Your task to perform on an android device: Open Chrome and go to the settings page Image 0: 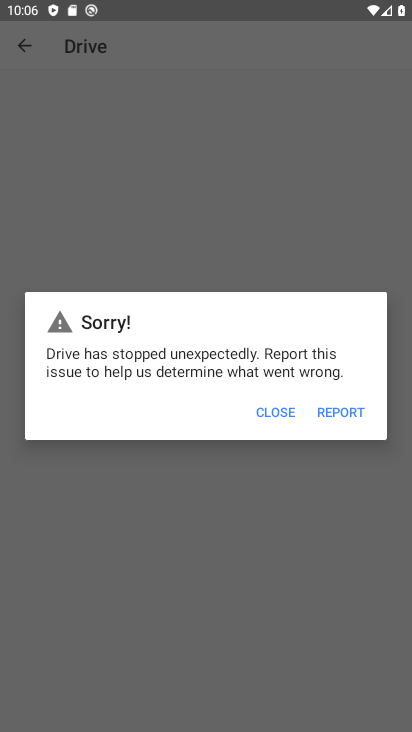
Step 0: press home button
Your task to perform on an android device: Open Chrome and go to the settings page Image 1: 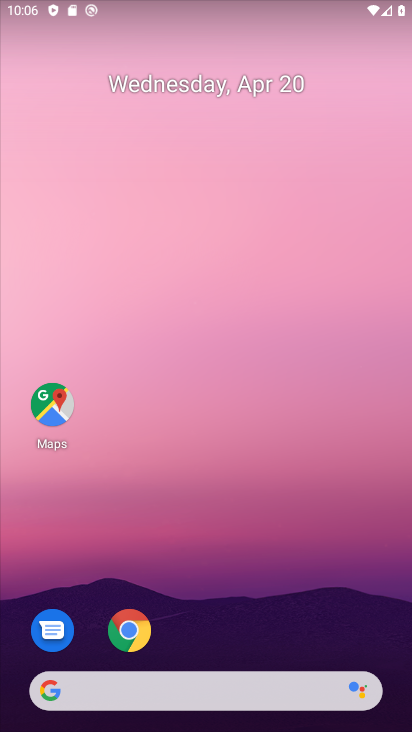
Step 1: drag from (329, 394) to (319, 57)
Your task to perform on an android device: Open Chrome and go to the settings page Image 2: 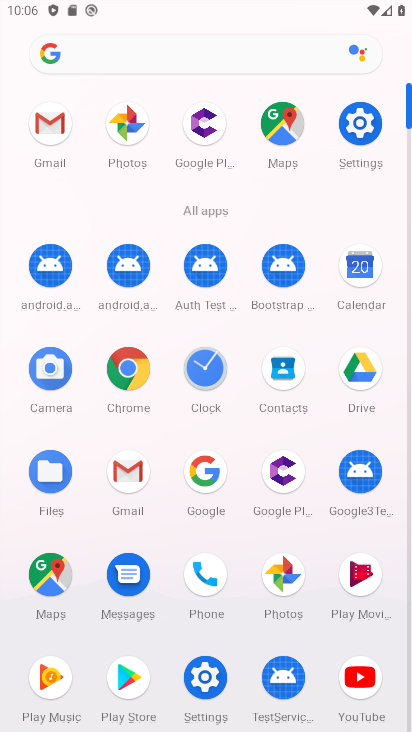
Step 2: click (142, 390)
Your task to perform on an android device: Open Chrome and go to the settings page Image 3: 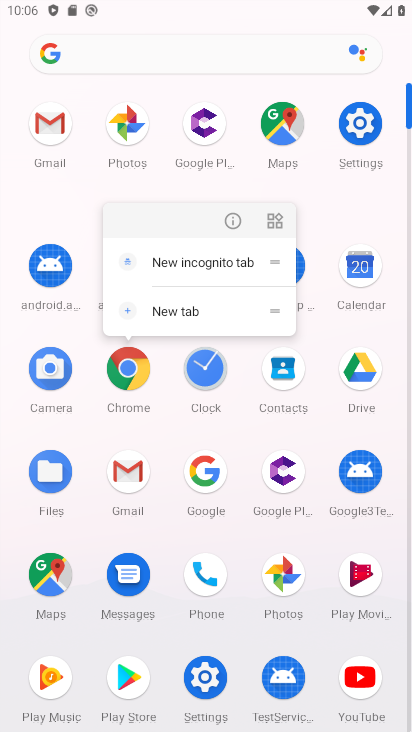
Step 3: click (123, 360)
Your task to perform on an android device: Open Chrome and go to the settings page Image 4: 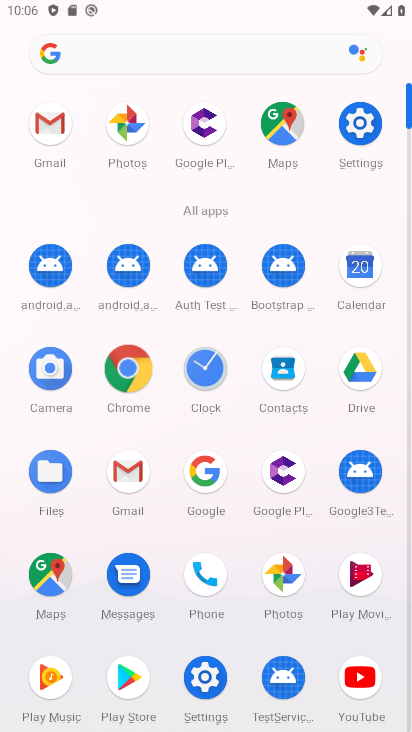
Step 4: click (122, 360)
Your task to perform on an android device: Open Chrome and go to the settings page Image 5: 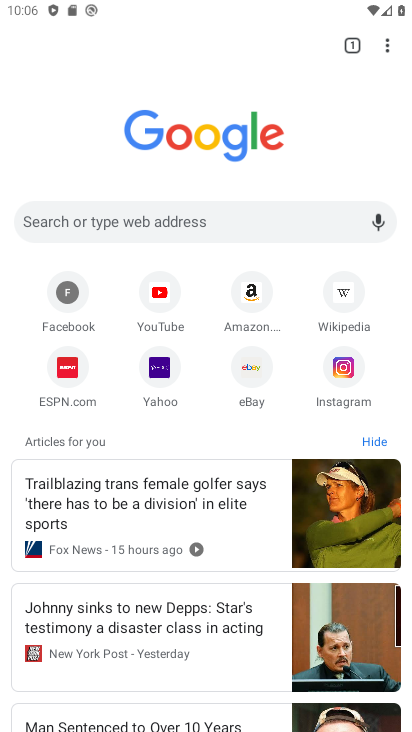
Step 5: task complete